Your task to perform on an android device: toggle wifi Image 0: 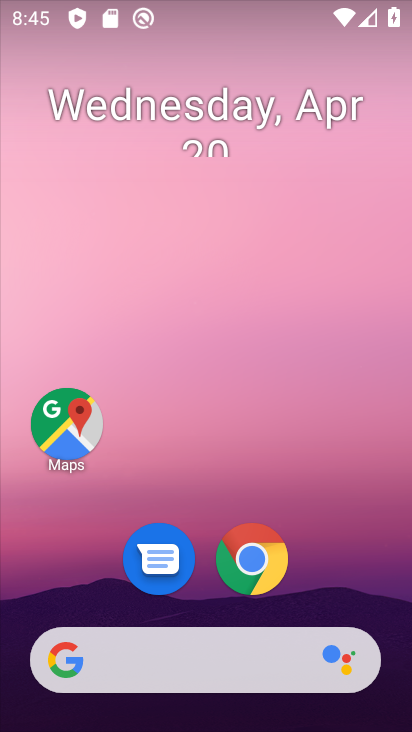
Step 0: drag from (323, 573) to (303, 63)
Your task to perform on an android device: toggle wifi Image 1: 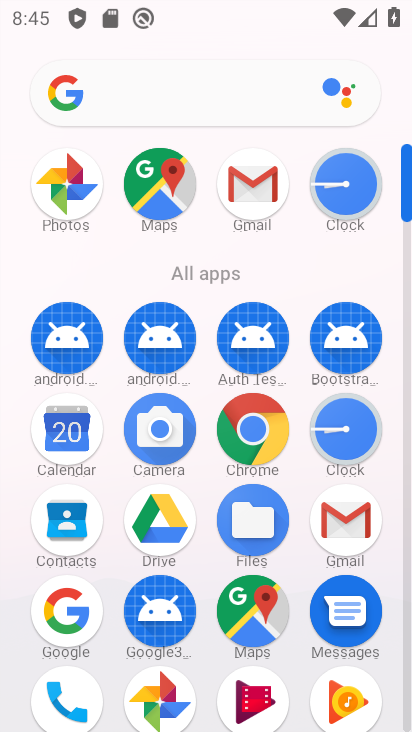
Step 1: drag from (298, 651) to (306, 206)
Your task to perform on an android device: toggle wifi Image 2: 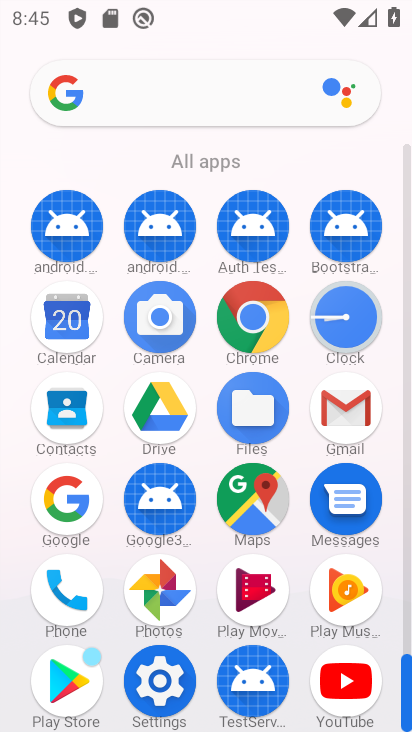
Step 2: click (156, 661)
Your task to perform on an android device: toggle wifi Image 3: 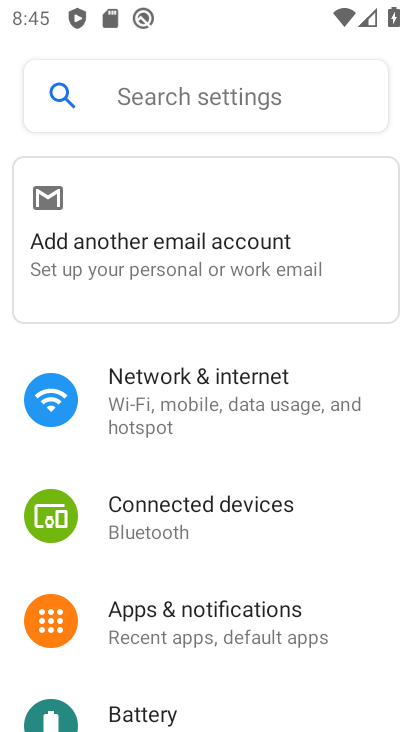
Step 3: click (155, 403)
Your task to perform on an android device: toggle wifi Image 4: 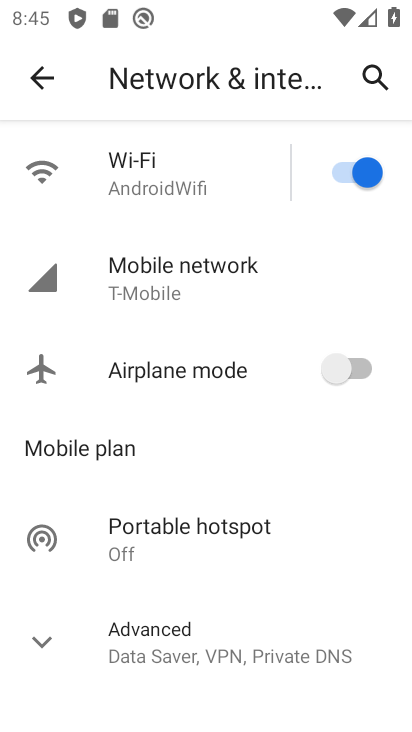
Step 4: click (347, 175)
Your task to perform on an android device: toggle wifi Image 5: 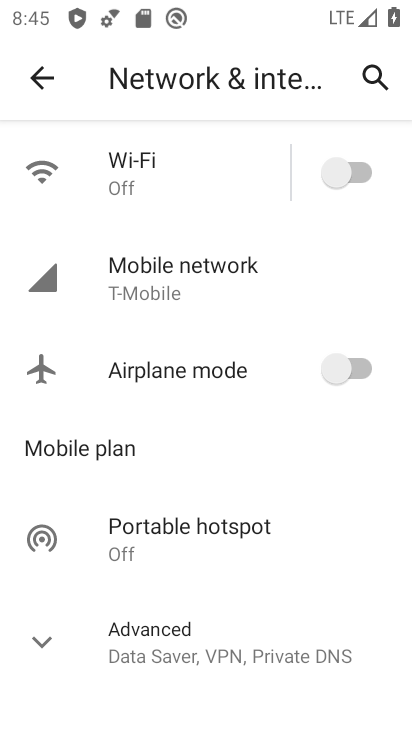
Step 5: task complete